Your task to perform on an android device: check out phone information Image 0: 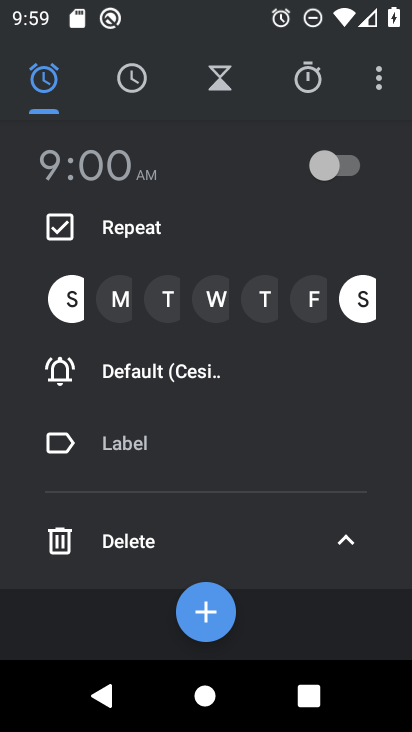
Step 0: press home button
Your task to perform on an android device: check out phone information Image 1: 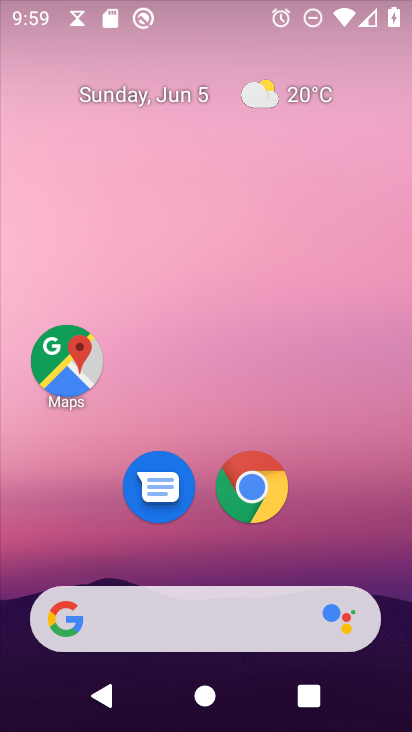
Step 1: drag from (225, 465) to (252, 125)
Your task to perform on an android device: check out phone information Image 2: 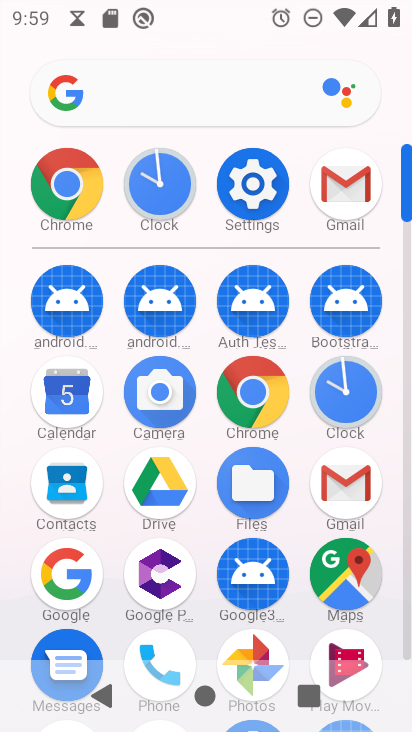
Step 2: click (251, 178)
Your task to perform on an android device: check out phone information Image 3: 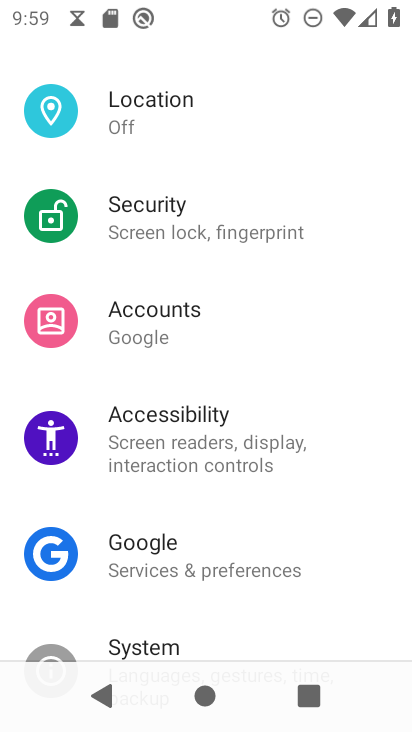
Step 3: drag from (202, 591) to (194, 144)
Your task to perform on an android device: check out phone information Image 4: 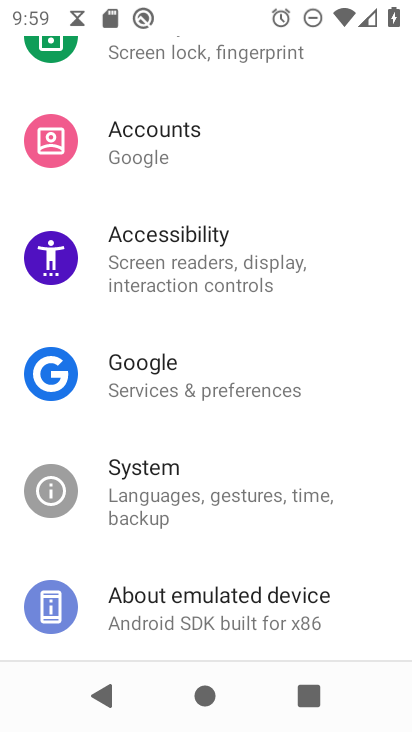
Step 4: click (217, 594)
Your task to perform on an android device: check out phone information Image 5: 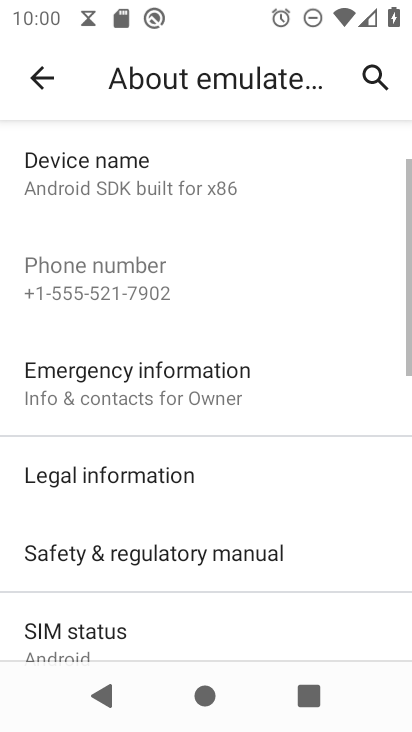
Step 5: task complete